Your task to perform on an android device: turn notification dots off Image 0: 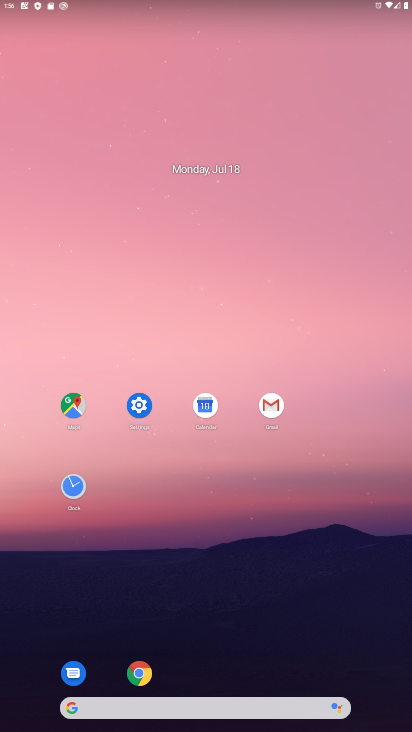
Step 0: click (143, 402)
Your task to perform on an android device: turn notification dots off Image 1: 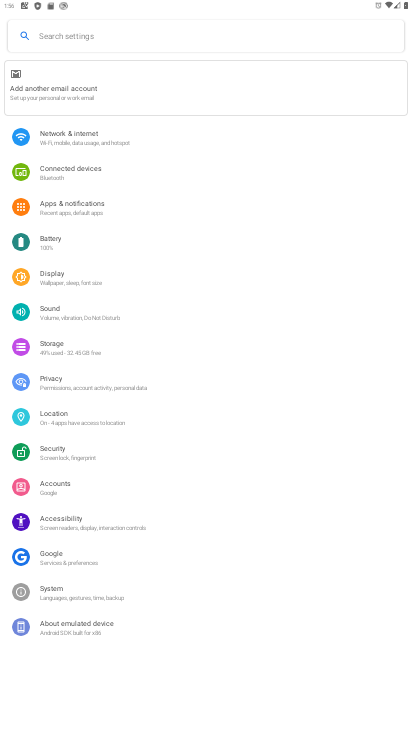
Step 1: click (67, 207)
Your task to perform on an android device: turn notification dots off Image 2: 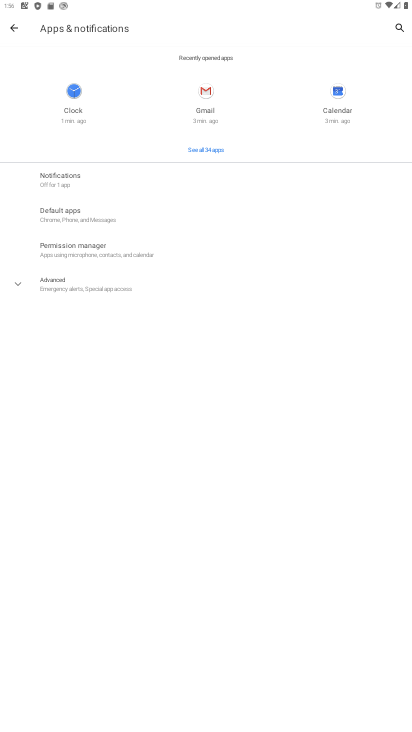
Step 2: click (80, 174)
Your task to perform on an android device: turn notification dots off Image 3: 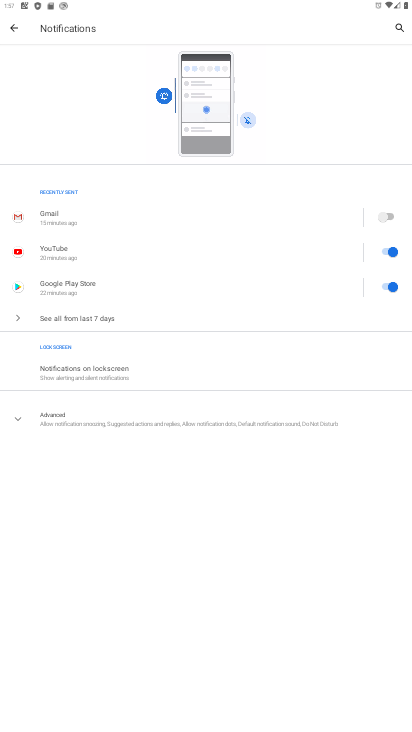
Step 3: click (12, 417)
Your task to perform on an android device: turn notification dots off Image 4: 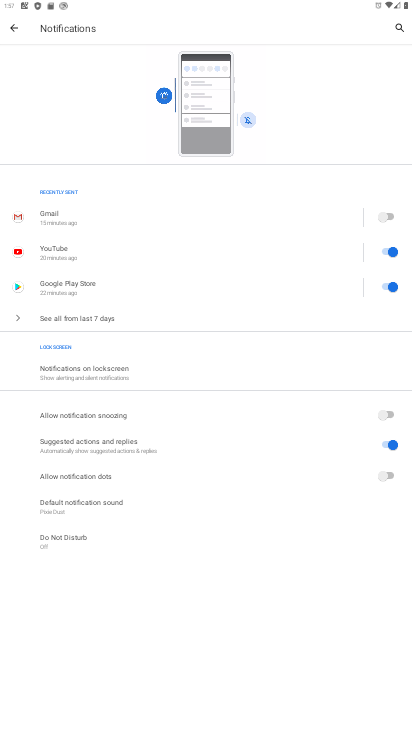
Step 4: task complete